Your task to perform on an android device: Go to sound settings Image 0: 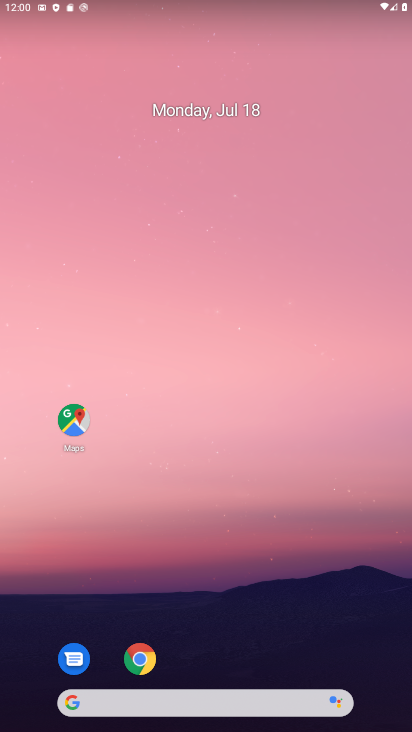
Step 0: drag from (234, 657) to (283, 71)
Your task to perform on an android device: Go to sound settings Image 1: 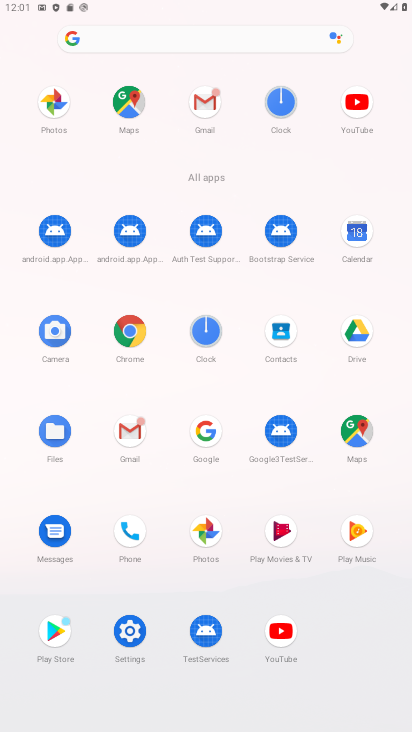
Step 1: click (131, 638)
Your task to perform on an android device: Go to sound settings Image 2: 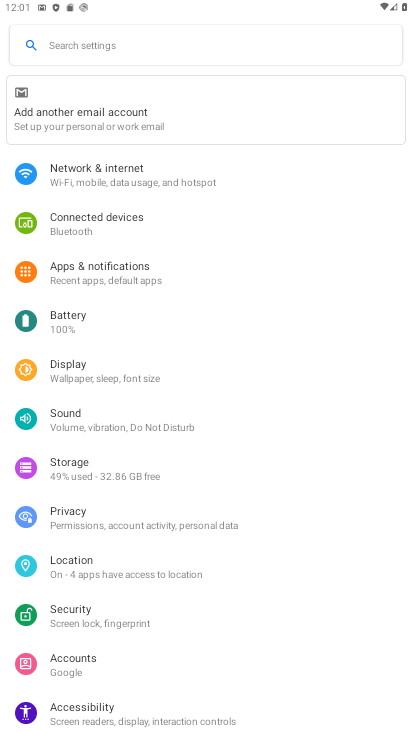
Step 2: click (96, 414)
Your task to perform on an android device: Go to sound settings Image 3: 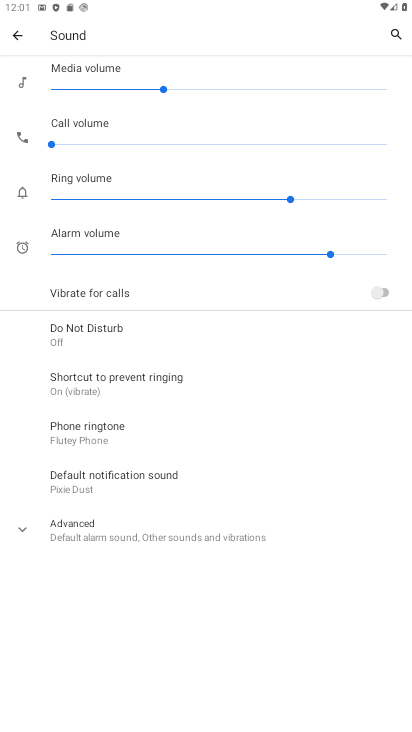
Step 3: task complete